Your task to perform on an android device: check battery use Image 0: 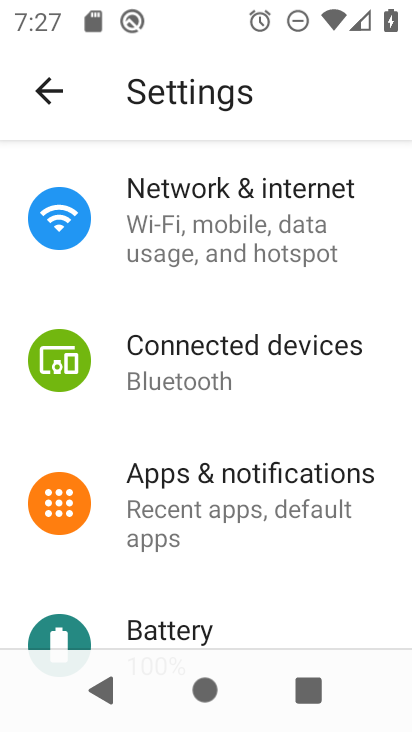
Step 0: drag from (269, 534) to (277, 401)
Your task to perform on an android device: check battery use Image 1: 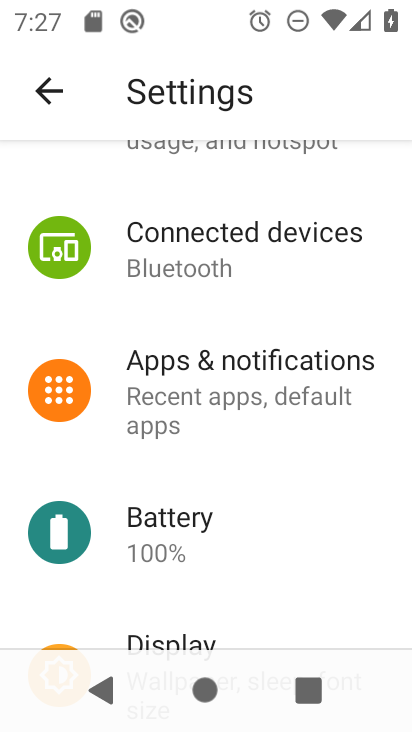
Step 1: click (165, 501)
Your task to perform on an android device: check battery use Image 2: 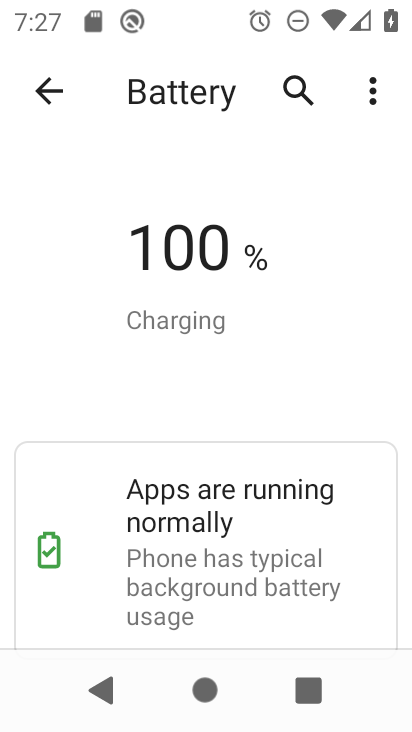
Step 2: task complete